Your task to perform on an android device: Open Google Maps and go to "Timeline" Image 0: 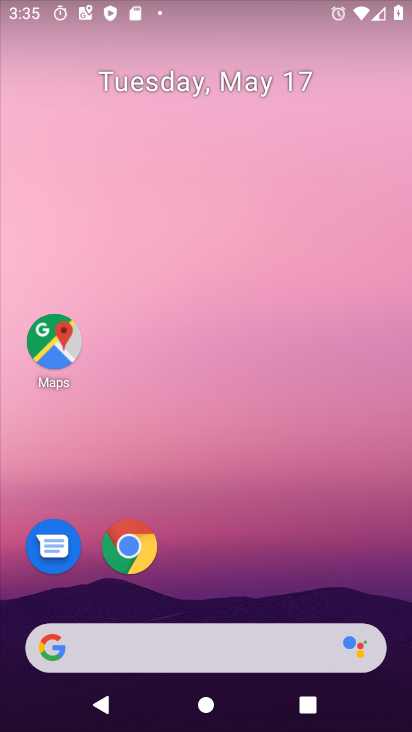
Step 0: drag from (231, 593) to (213, 327)
Your task to perform on an android device: Open Google Maps and go to "Timeline" Image 1: 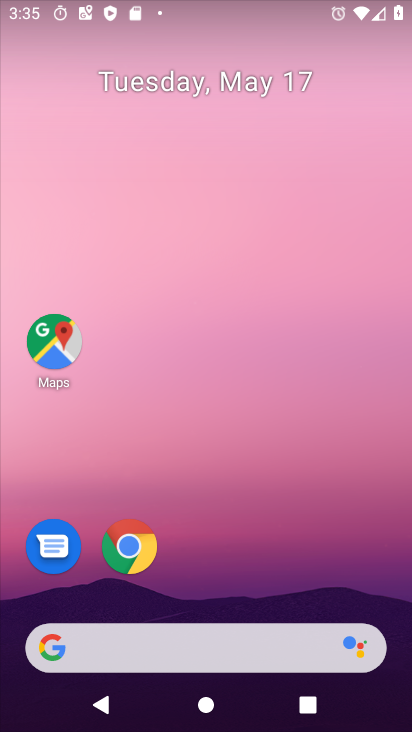
Step 1: drag from (212, 635) to (197, 367)
Your task to perform on an android device: Open Google Maps and go to "Timeline" Image 2: 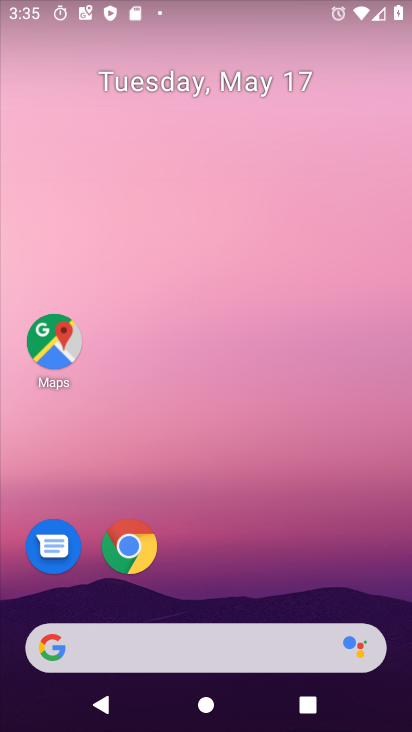
Step 2: click (66, 341)
Your task to perform on an android device: Open Google Maps and go to "Timeline" Image 3: 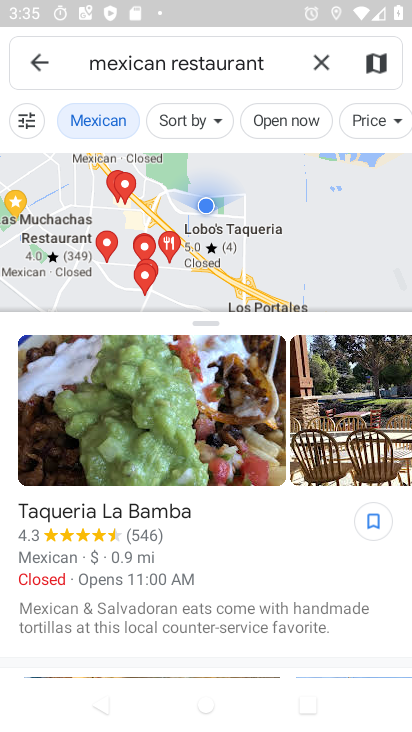
Step 3: click (37, 59)
Your task to perform on an android device: Open Google Maps and go to "Timeline" Image 4: 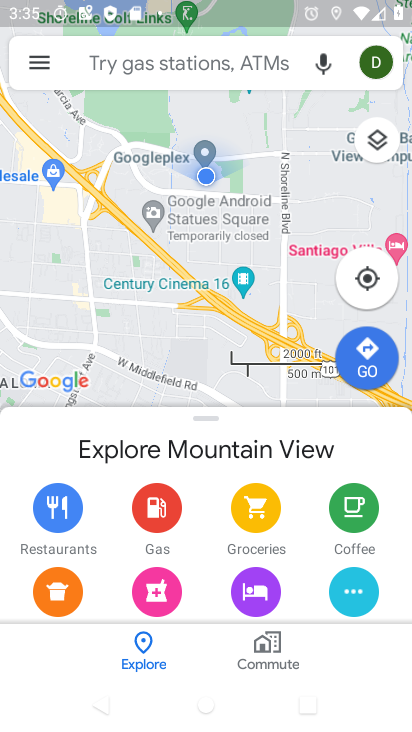
Step 4: click (39, 67)
Your task to perform on an android device: Open Google Maps and go to "Timeline" Image 5: 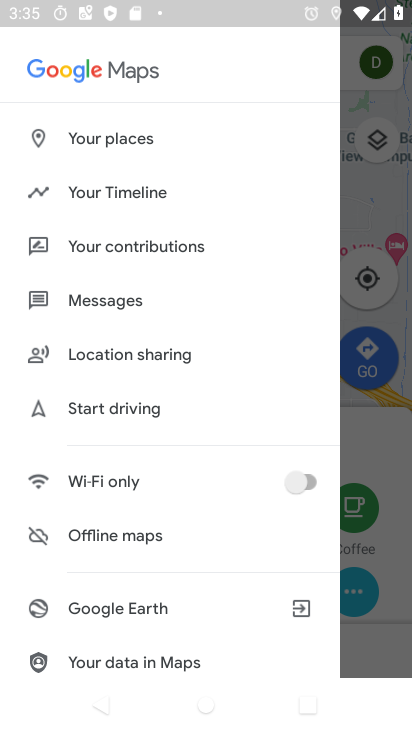
Step 5: click (114, 187)
Your task to perform on an android device: Open Google Maps and go to "Timeline" Image 6: 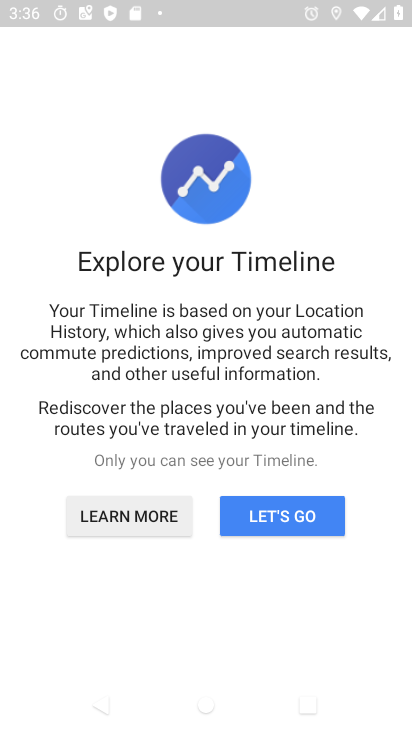
Step 6: click (263, 513)
Your task to perform on an android device: Open Google Maps and go to "Timeline" Image 7: 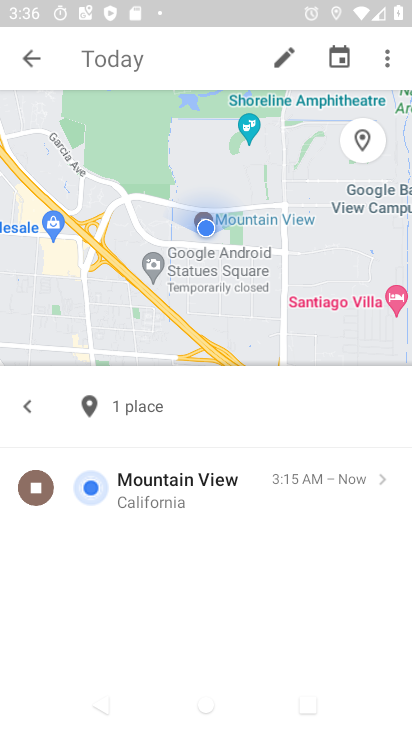
Step 7: task complete